Your task to perform on an android device: turn notification dots off Image 0: 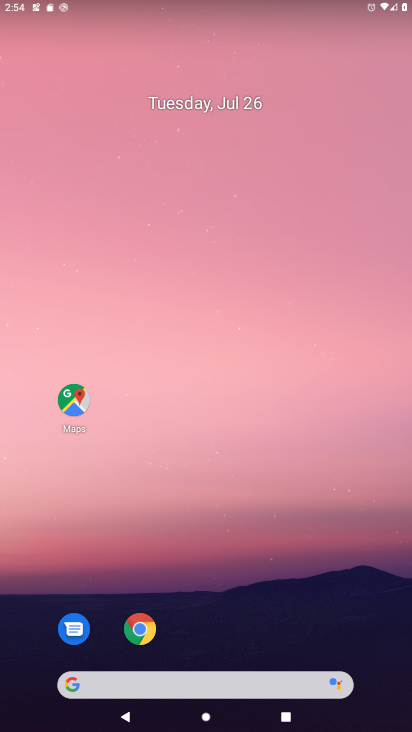
Step 0: drag from (240, 623) to (247, 285)
Your task to perform on an android device: turn notification dots off Image 1: 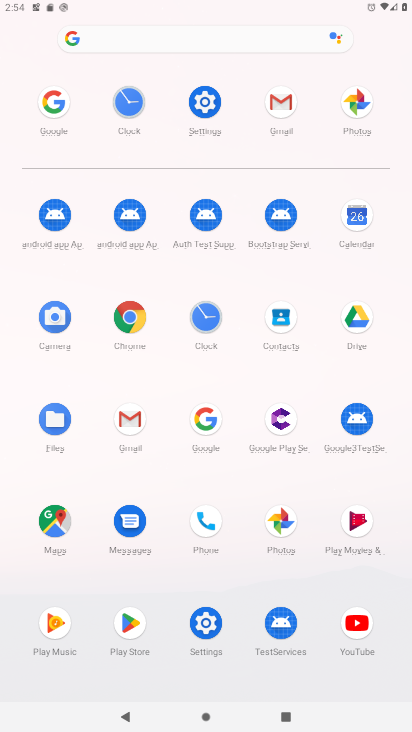
Step 1: click (218, 122)
Your task to perform on an android device: turn notification dots off Image 2: 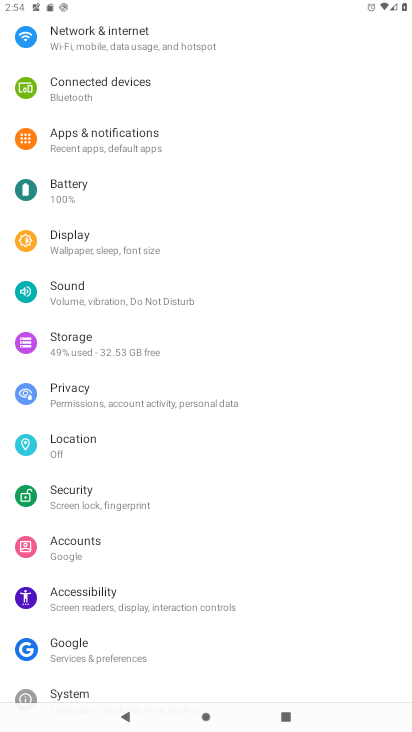
Step 2: click (167, 158)
Your task to perform on an android device: turn notification dots off Image 3: 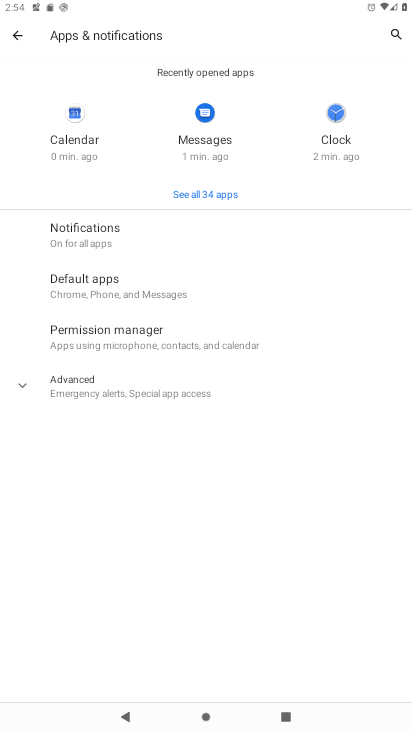
Step 3: click (132, 260)
Your task to perform on an android device: turn notification dots off Image 4: 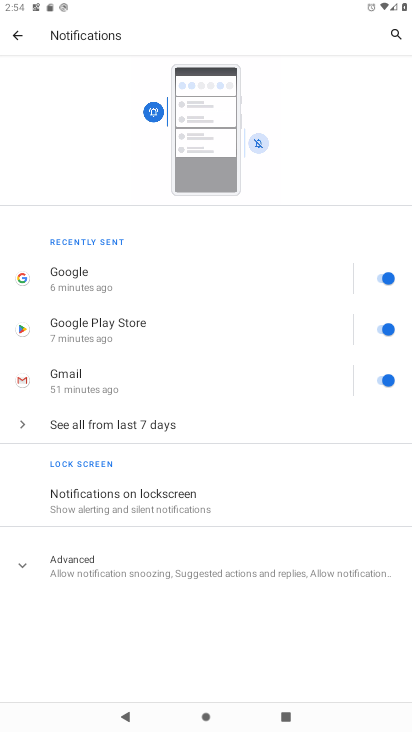
Step 4: click (217, 568)
Your task to perform on an android device: turn notification dots off Image 5: 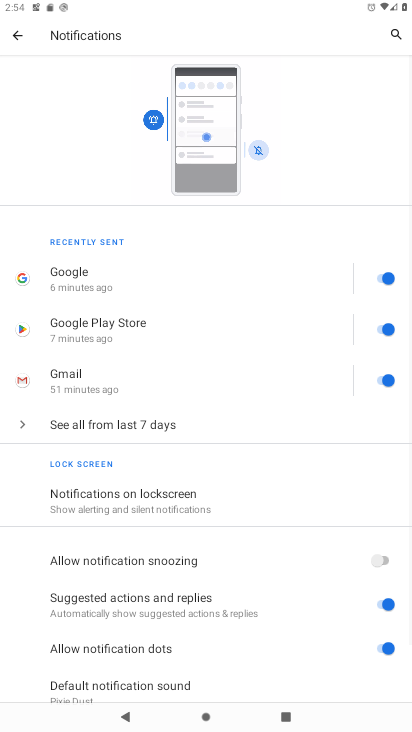
Step 5: click (369, 657)
Your task to perform on an android device: turn notification dots off Image 6: 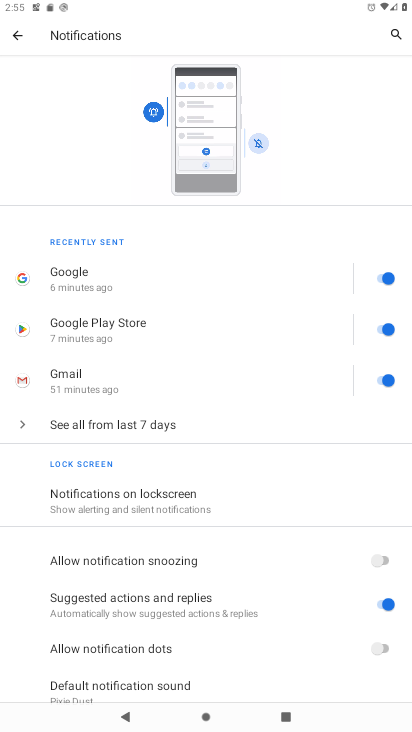
Step 6: task complete